Your task to perform on an android device: Go to Google Image 0: 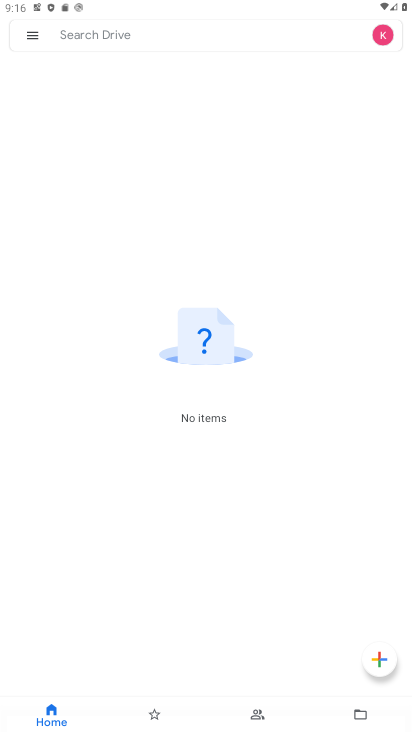
Step 0: press home button
Your task to perform on an android device: Go to Google Image 1: 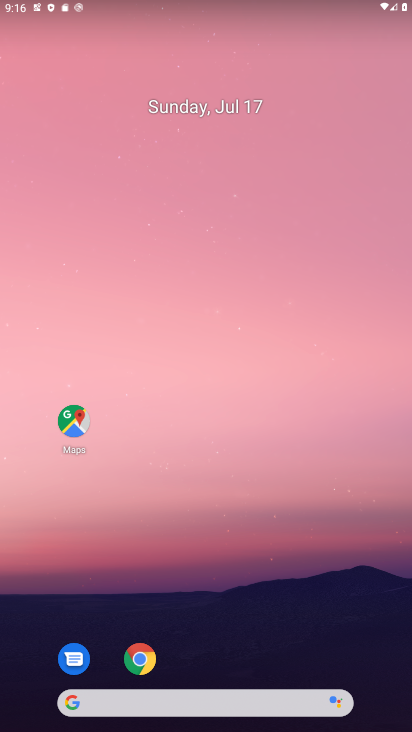
Step 1: drag from (205, 641) to (205, 245)
Your task to perform on an android device: Go to Google Image 2: 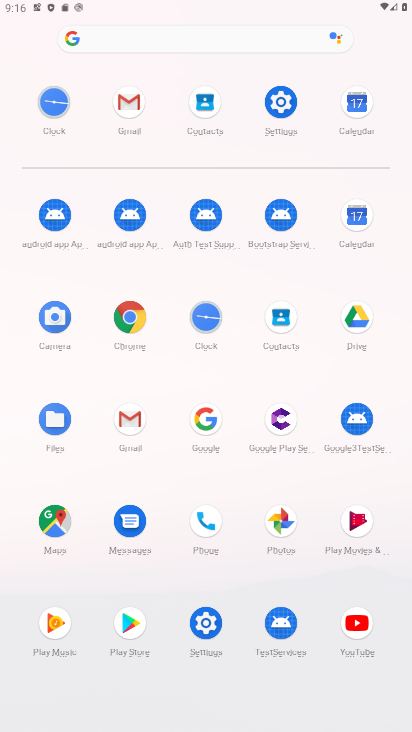
Step 2: click (197, 439)
Your task to perform on an android device: Go to Google Image 3: 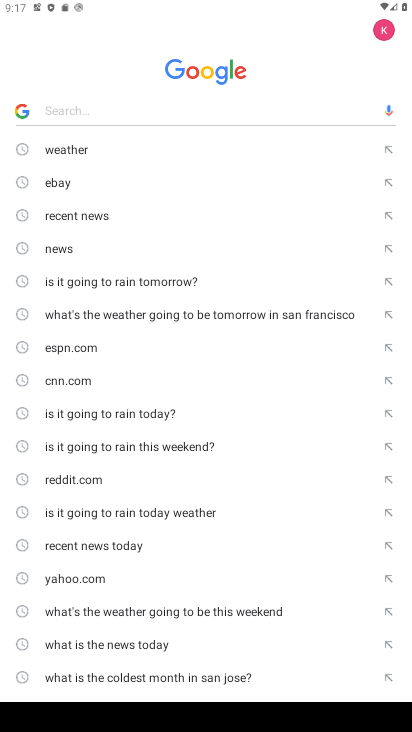
Step 3: task complete